Your task to perform on an android device: Open accessibility settings Image 0: 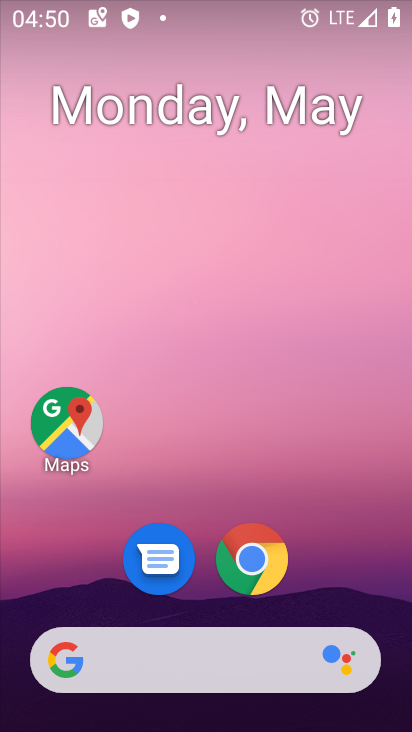
Step 0: drag from (188, 597) to (291, 0)
Your task to perform on an android device: Open accessibility settings Image 1: 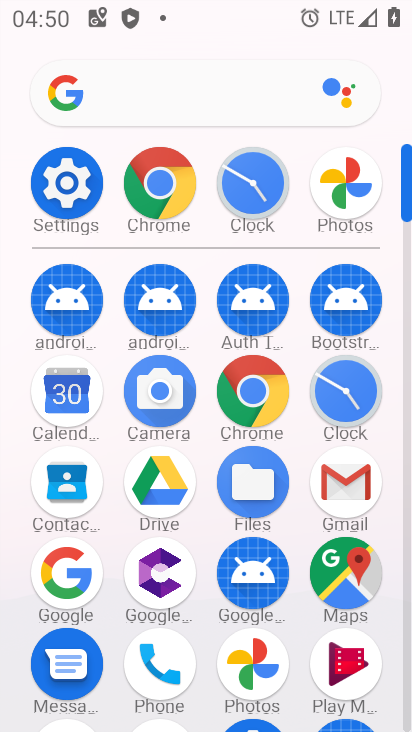
Step 1: click (72, 198)
Your task to perform on an android device: Open accessibility settings Image 2: 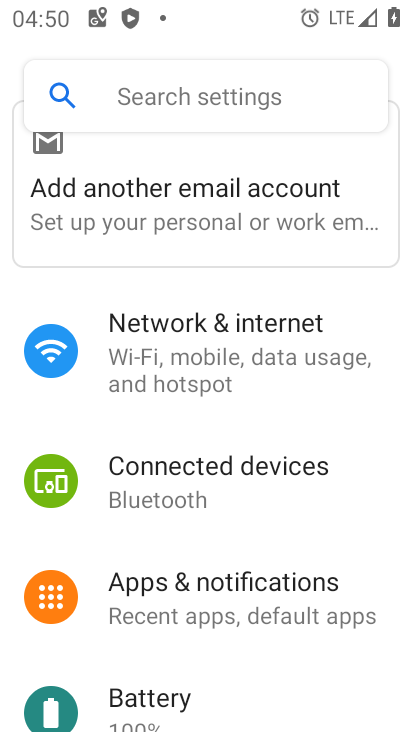
Step 2: drag from (216, 603) to (267, 31)
Your task to perform on an android device: Open accessibility settings Image 3: 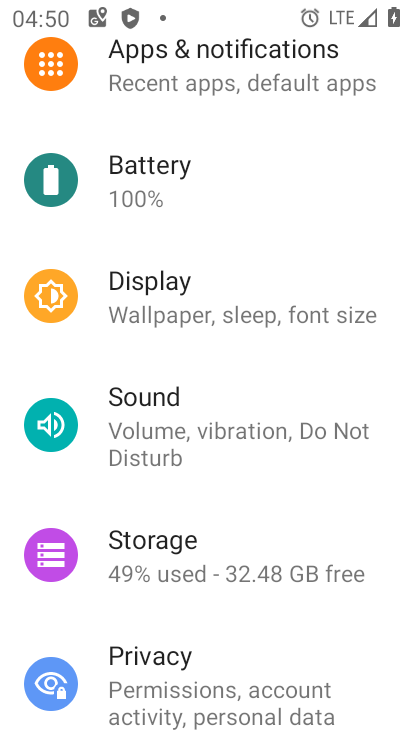
Step 3: drag from (237, 640) to (253, 52)
Your task to perform on an android device: Open accessibility settings Image 4: 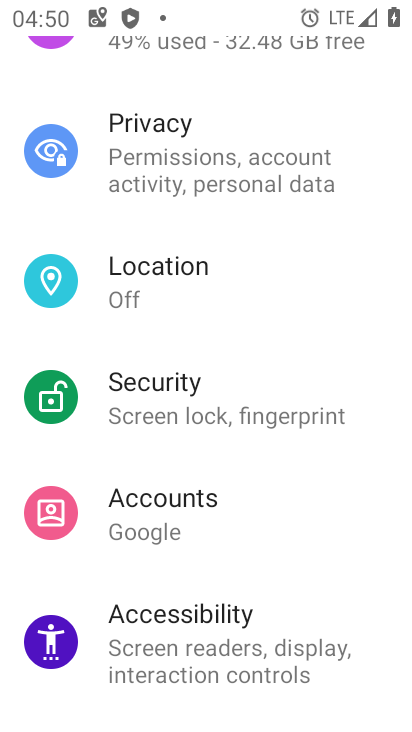
Step 4: click (270, 693)
Your task to perform on an android device: Open accessibility settings Image 5: 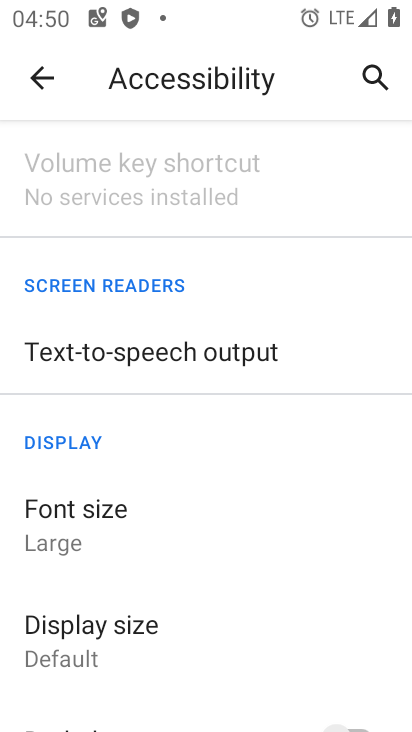
Step 5: task complete